Your task to perform on an android device: Clear all items from cart on bestbuy.com. Search for "apple airpods pro" on bestbuy.com, select the first entry, and add it to the cart. Image 0: 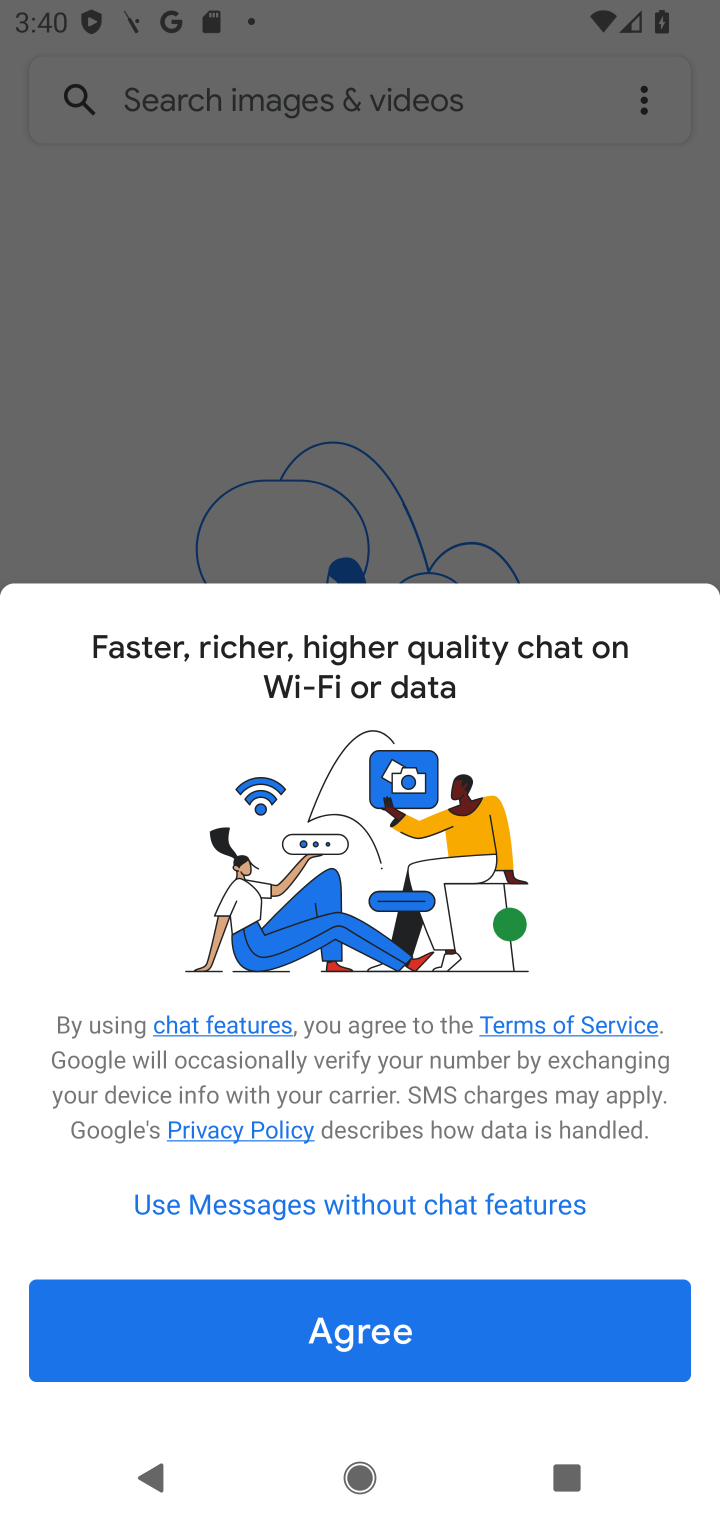
Step 0: press home button
Your task to perform on an android device: Clear all items from cart on bestbuy.com. Search for "apple airpods pro" on bestbuy.com, select the first entry, and add it to the cart. Image 1: 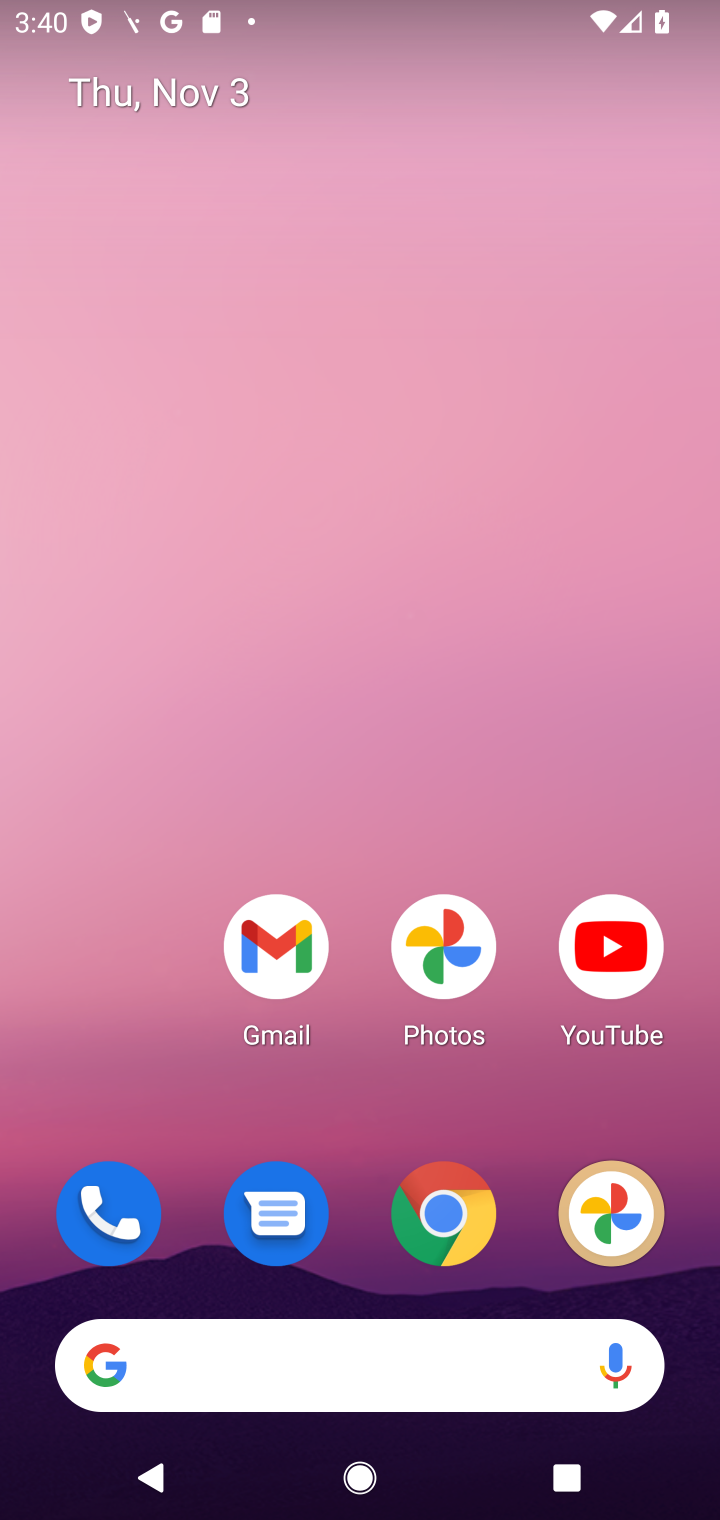
Step 1: click (446, 1218)
Your task to perform on an android device: Clear all items from cart on bestbuy.com. Search for "apple airpods pro" on bestbuy.com, select the first entry, and add it to the cart. Image 2: 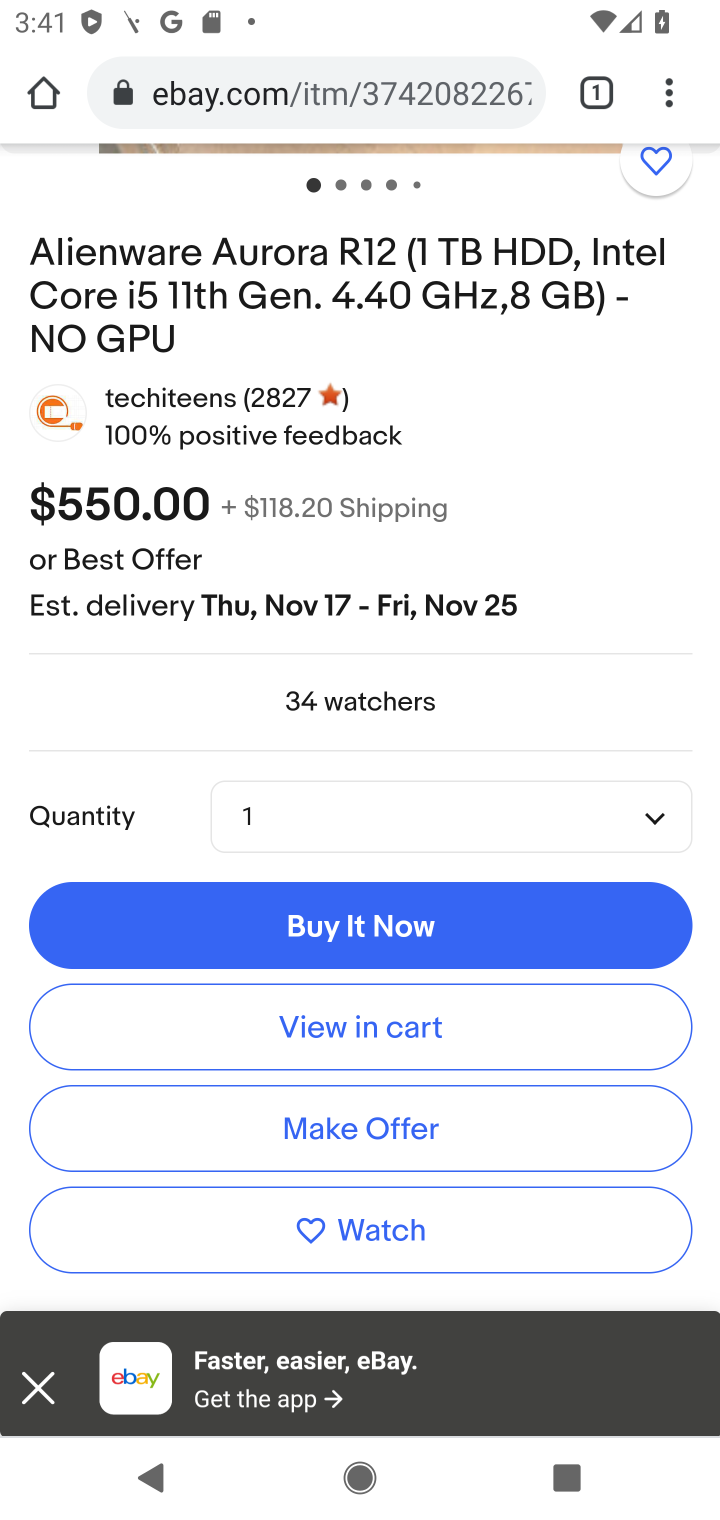
Step 2: click (282, 101)
Your task to perform on an android device: Clear all items from cart on bestbuy.com. Search for "apple airpods pro" on bestbuy.com, select the first entry, and add it to the cart. Image 3: 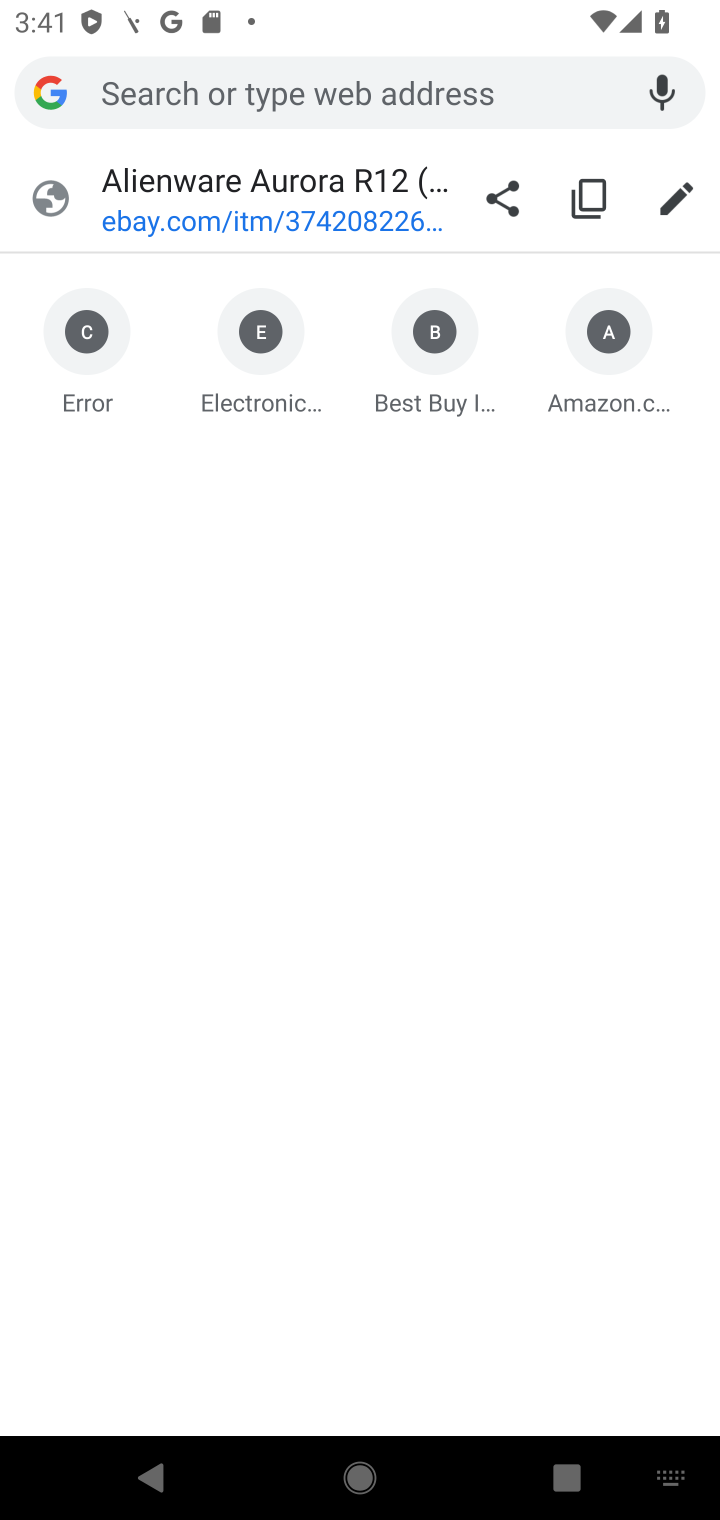
Step 3: type "bestbuy.com"
Your task to perform on an android device: Clear all items from cart on bestbuy.com. Search for "apple airpods pro" on bestbuy.com, select the first entry, and add it to the cart. Image 4: 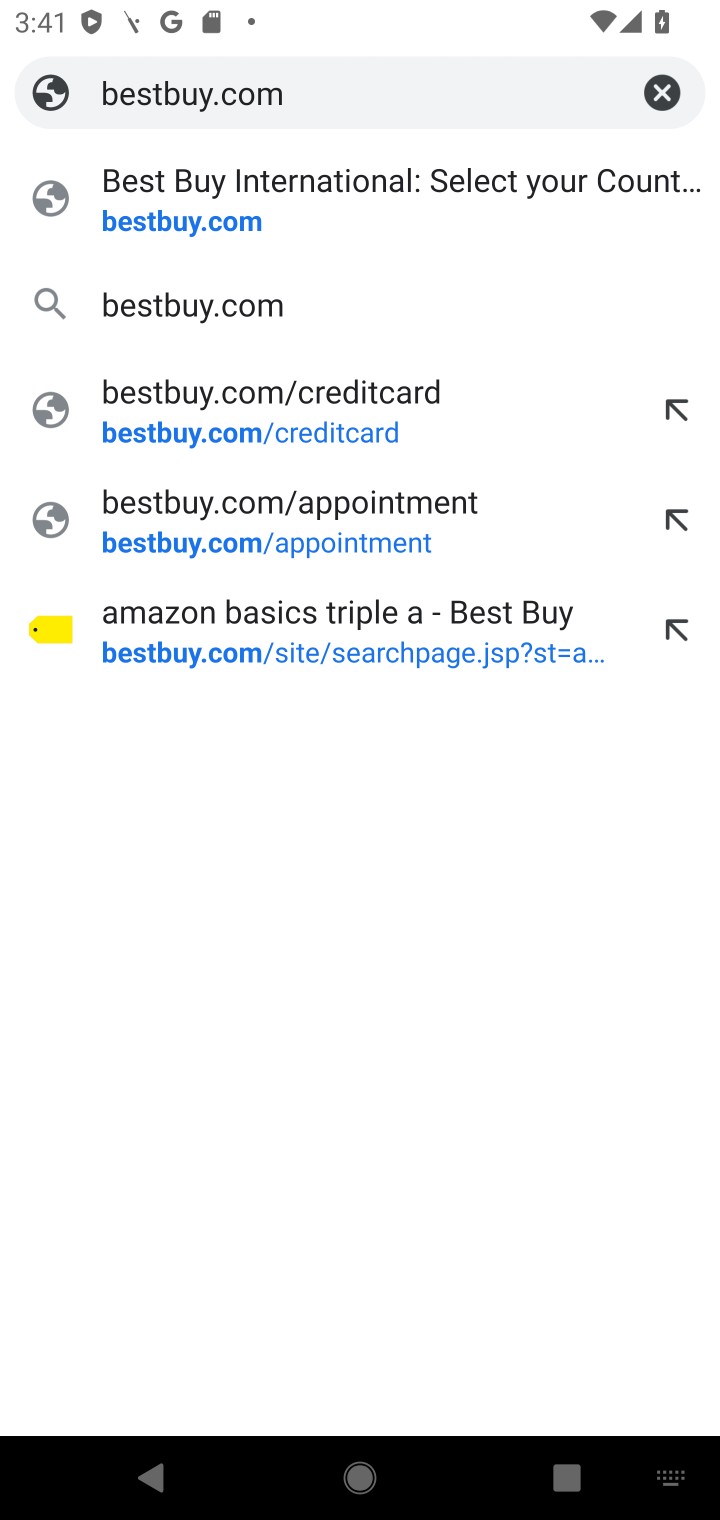
Step 4: click (184, 235)
Your task to perform on an android device: Clear all items from cart on bestbuy.com. Search for "apple airpods pro" on bestbuy.com, select the first entry, and add it to the cart. Image 5: 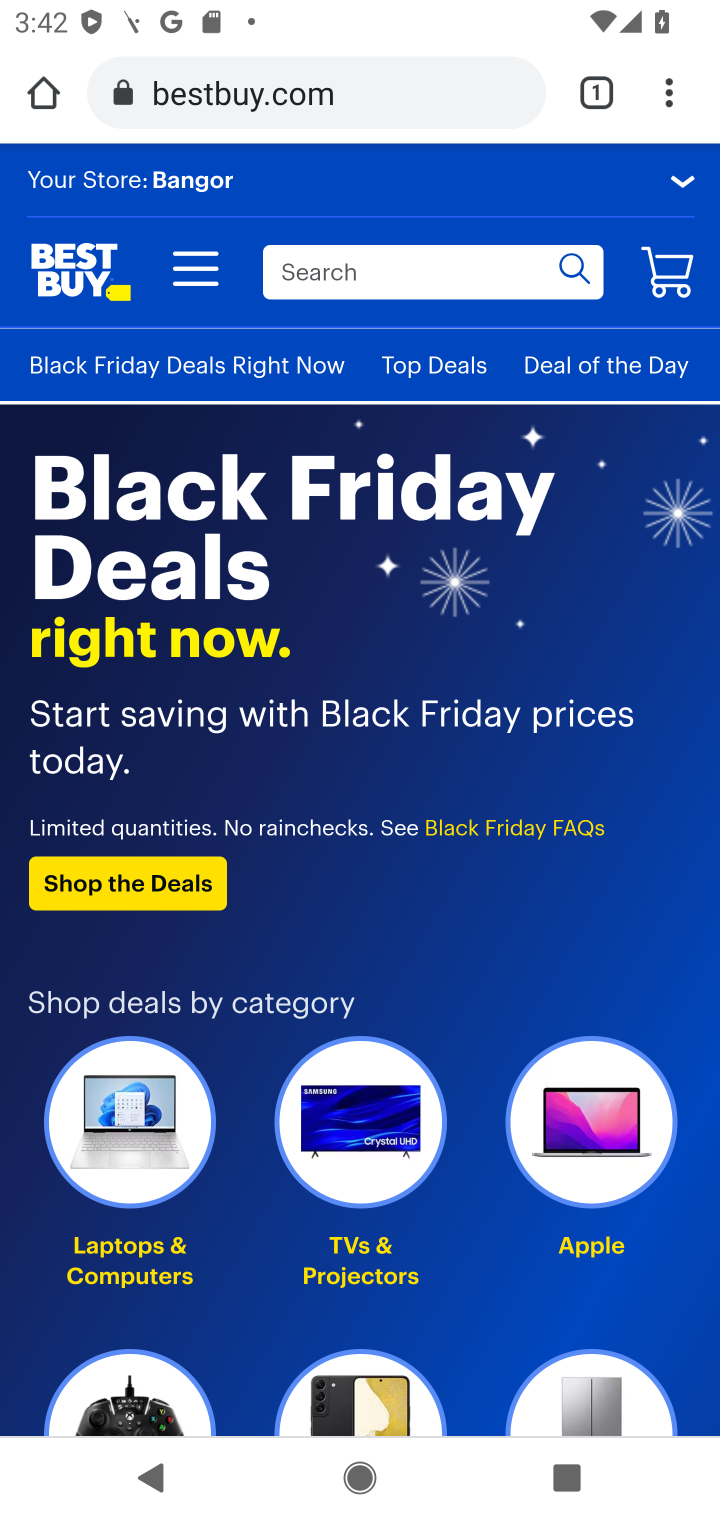
Step 5: click (670, 294)
Your task to perform on an android device: Clear all items from cart on bestbuy.com. Search for "apple airpods pro" on bestbuy.com, select the first entry, and add it to the cart. Image 6: 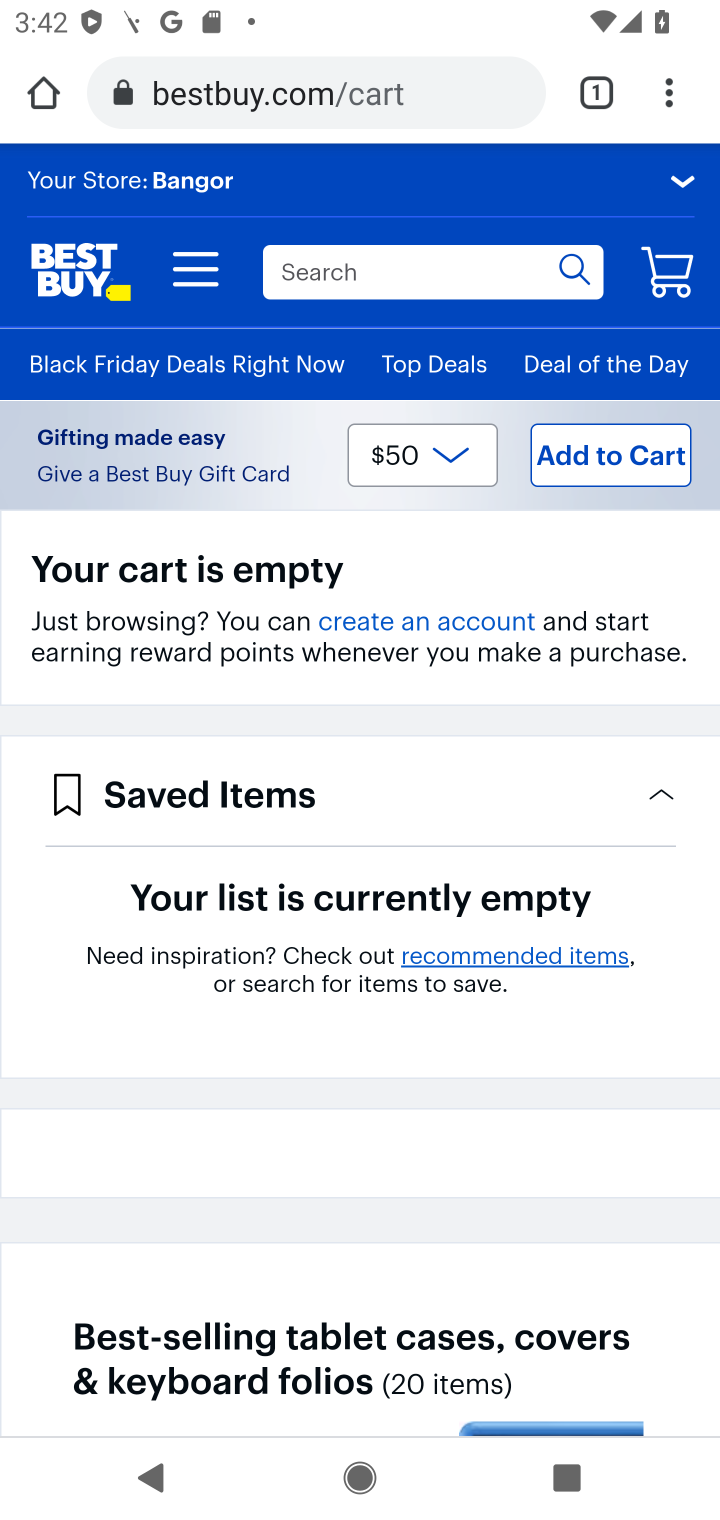
Step 6: click (407, 258)
Your task to perform on an android device: Clear all items from cart on bestbuy.com. Search for "apple airpods pro" on bestbuy.com, select the first entry, and add it to the cart. Image 7: 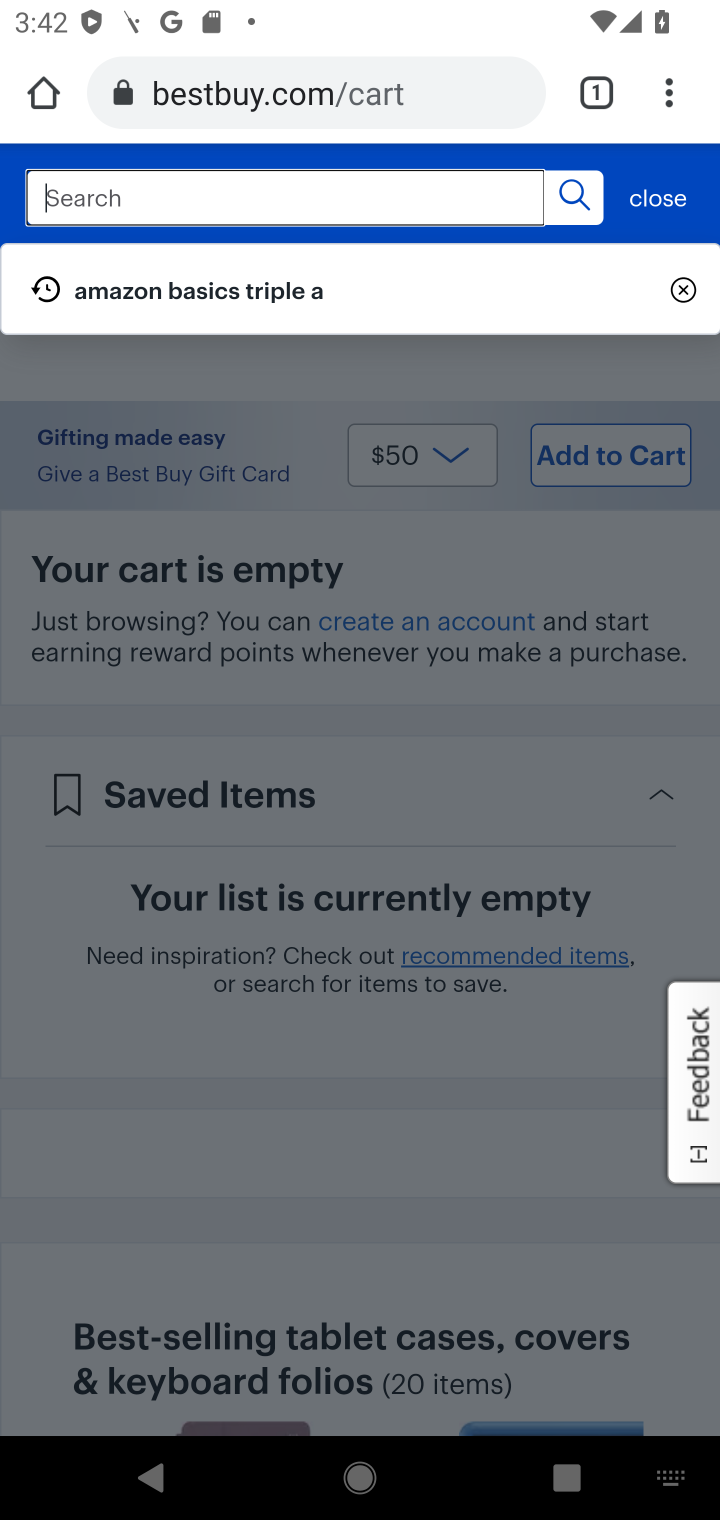
Step 7: type "apple airpods pro"
Your task to perform on an android device: Clear all items from cart on bestbuy.com. Search for "apple airpods pro" on bestbuy.com, select the first entry, and add it to the cart. Image 8: 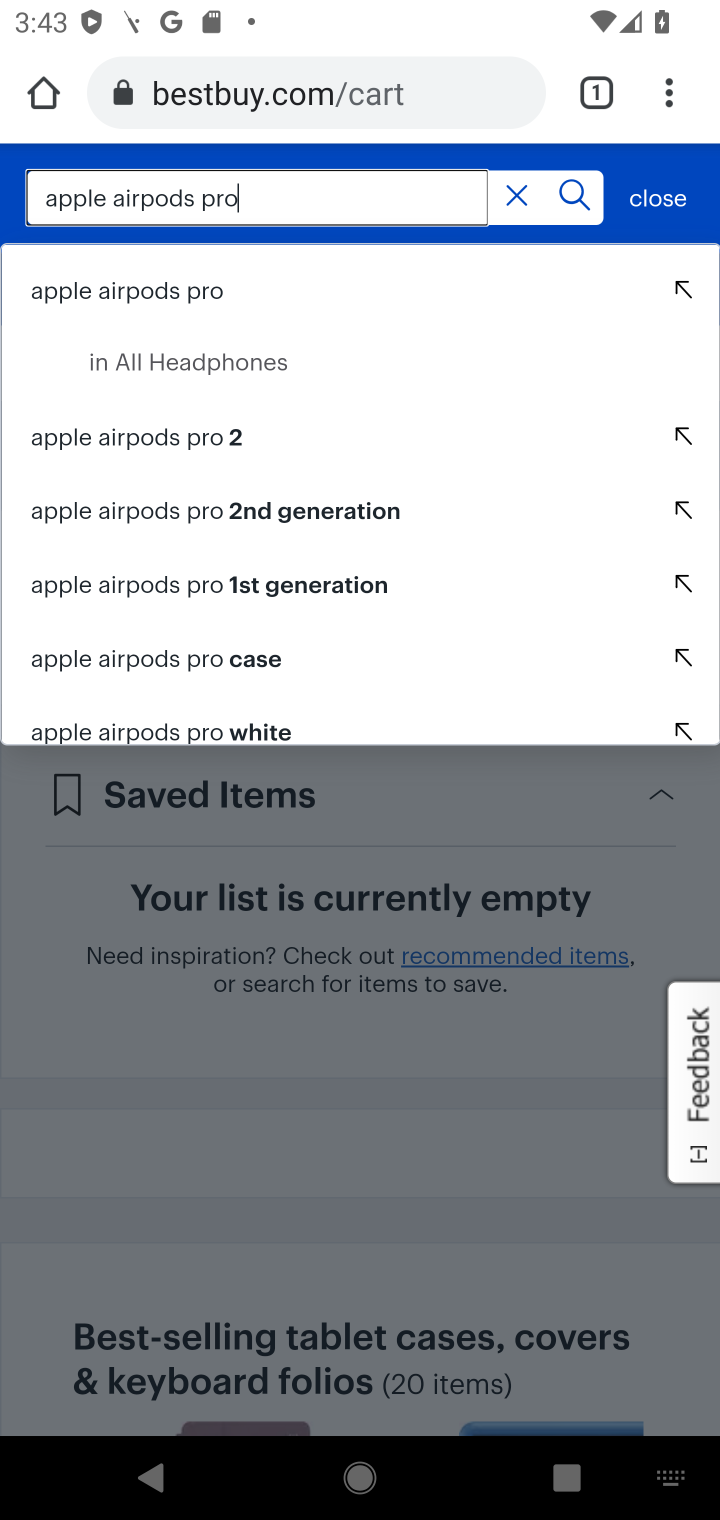
Step 8: click (80, 288)
Your task to perform on an android device: Clear all items from cart on bestbuy.com. Search for "apple airpods pro" on bestbuy.com, select the first entry, and add it to the cart. Image 9: 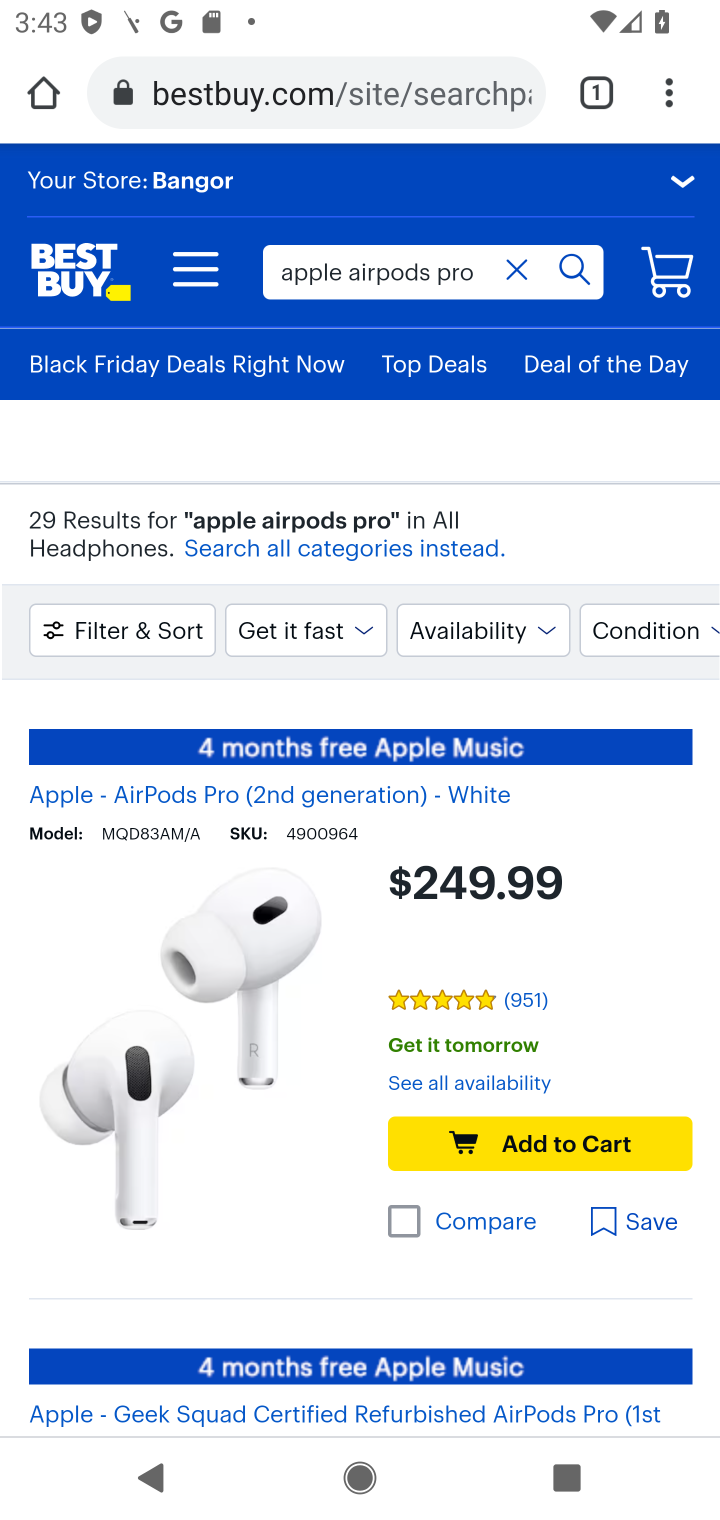
Step 9: click (273, 991)
Your task to perform on an android device: Clear all items from cart on bestbuy.com. Search for "apple airpods pro" on bestbuy.com, select the first entry, and add it to the cart. Image 10: 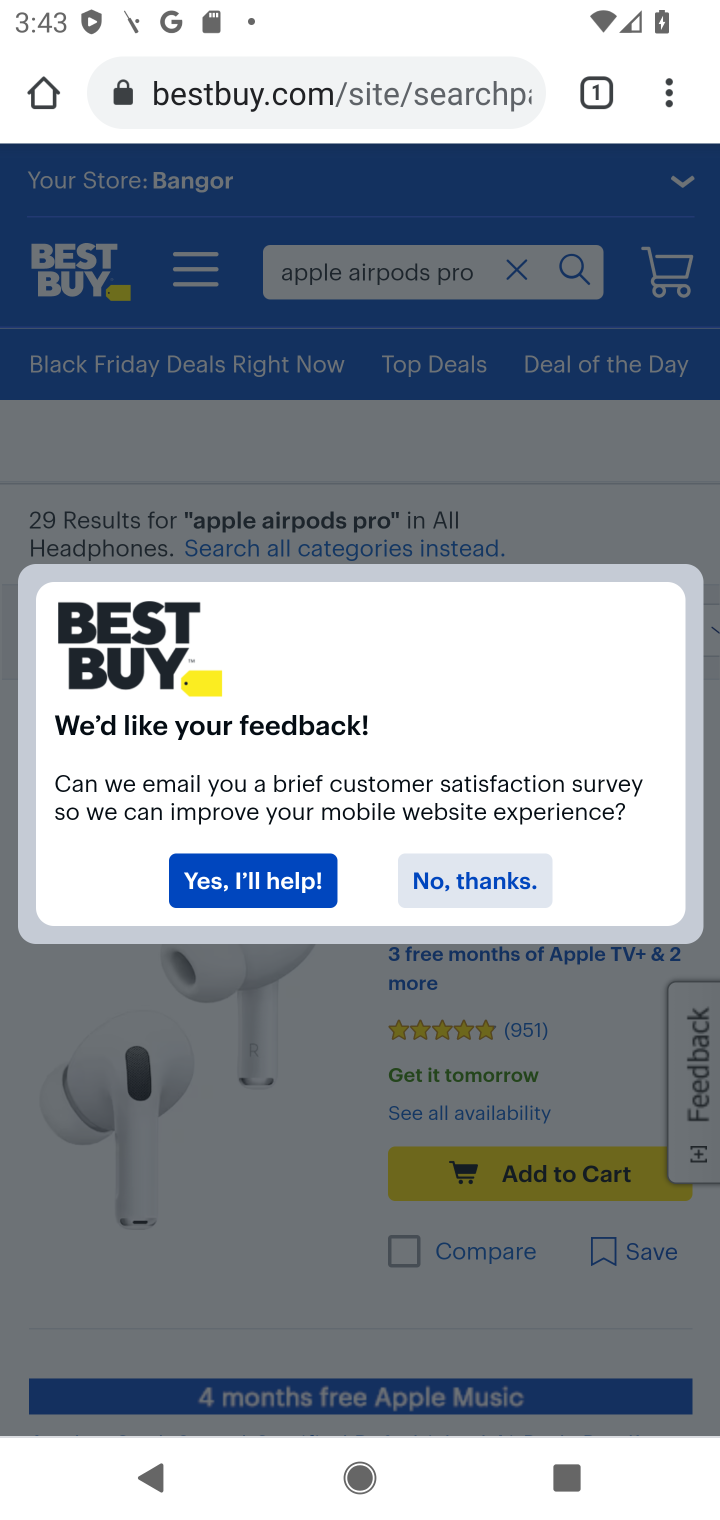
Step 10: click (438, 867)
Your task to perform on an android device: Clear all items from cart on bestbuy.com. Search for "apple airpods pro" on bestbuy.com, select the first entry, and add it to the cart. Image 11: 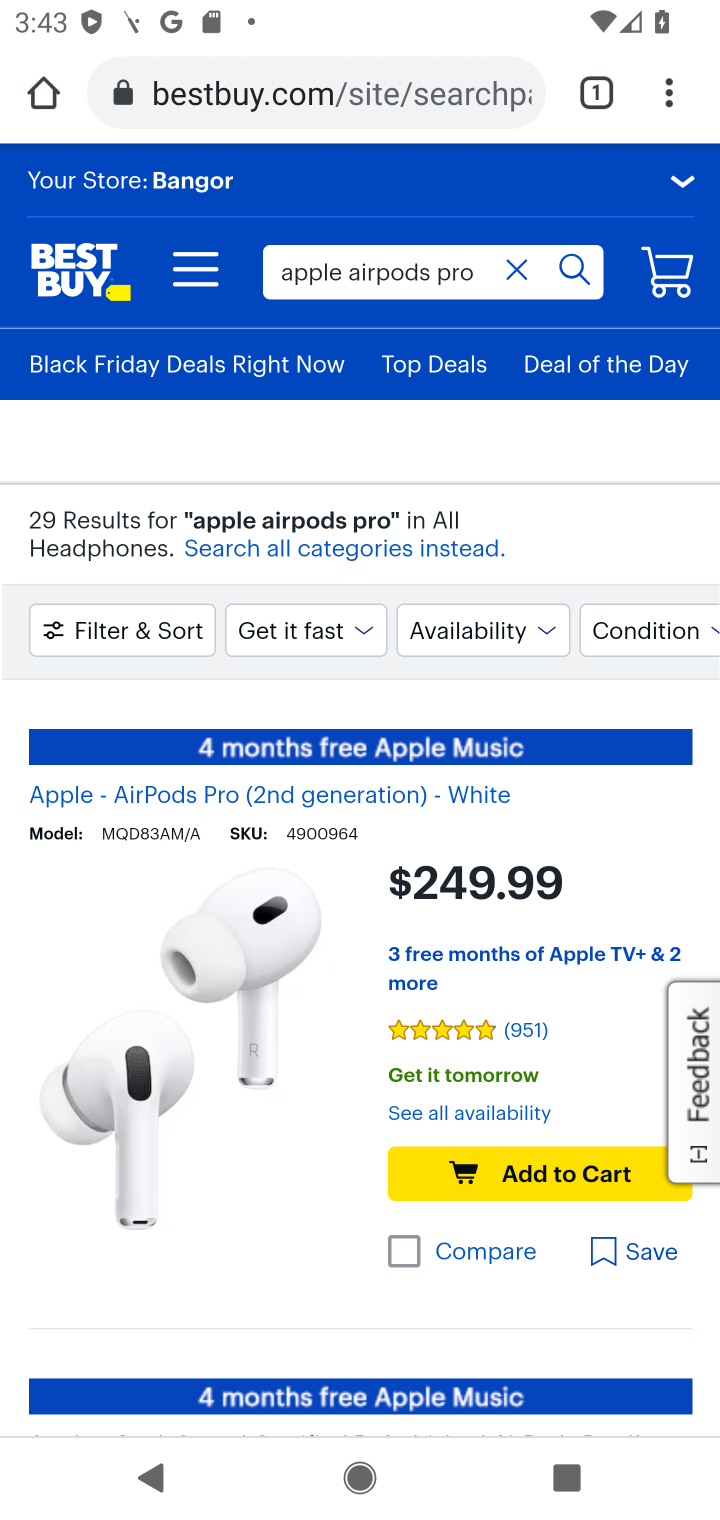
Step 11: click (430, 878)
Your task to perform on an android device: Clear all items from cart on bestbuy.com. Search for "apple airpods pro" on bestbuy.com, select the first entry, and add it to the cart. Image 12: 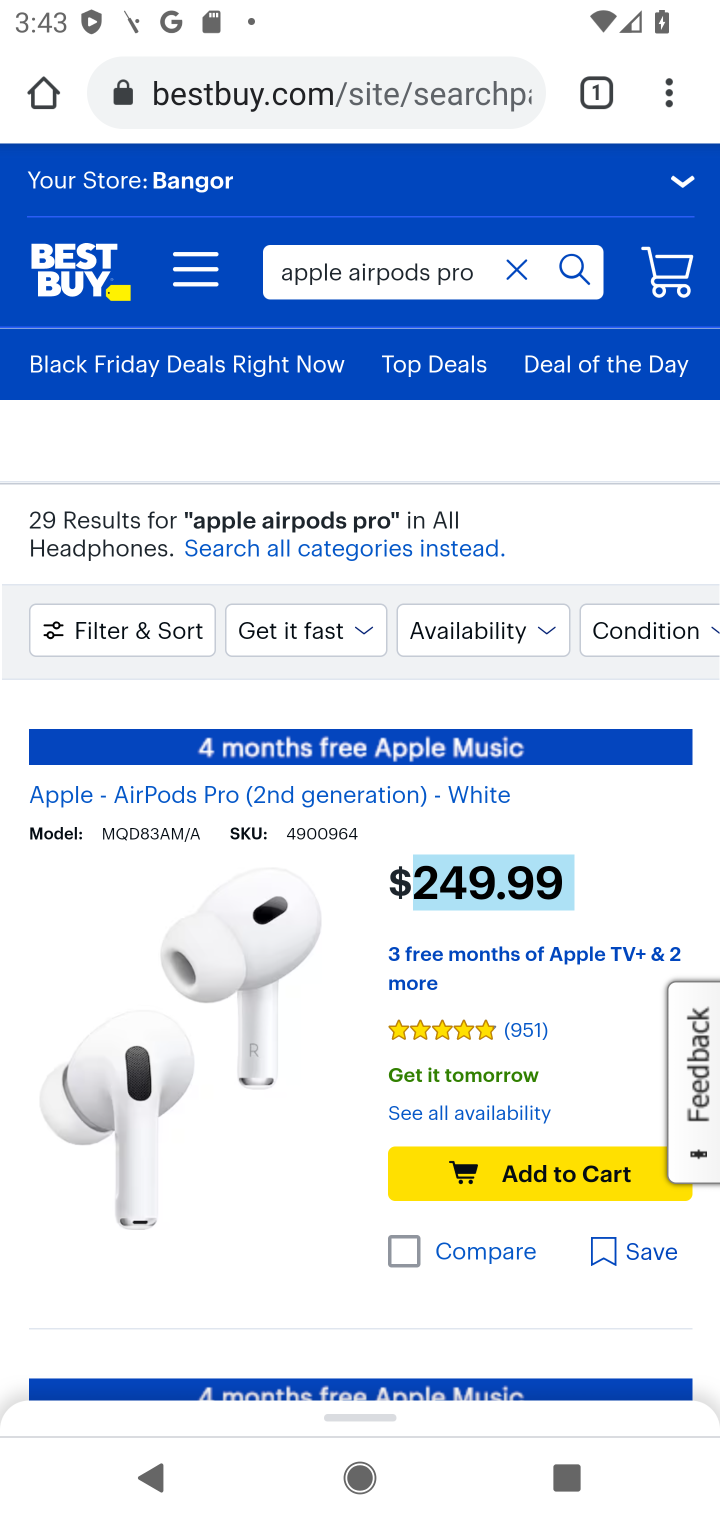
Step 12: click (276, 1077)
Your task to perform on an android device: Clear all items from cart on bestbuy.com. Search for "apple airpods pro" on bestbuy.com, select the first entry, and add it to the cart. Image 13: 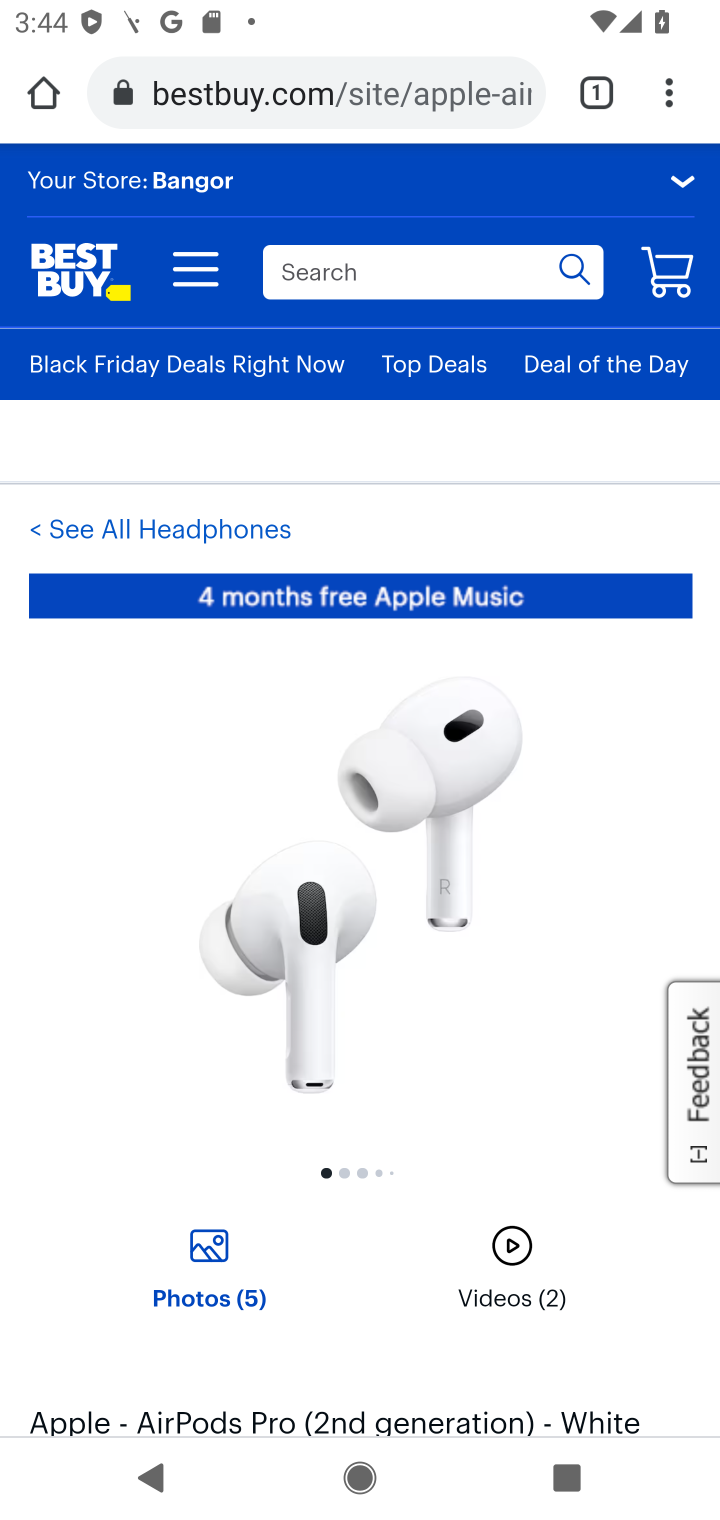
Step 13: drag from (406, 992) to (439, 304)
Your task to perform on an android device: Clear all items from cart on bestbuy.com. Search for "apple airpods pro" on bestbuy.com, select the first entry, and add it to the cart. Image 14: 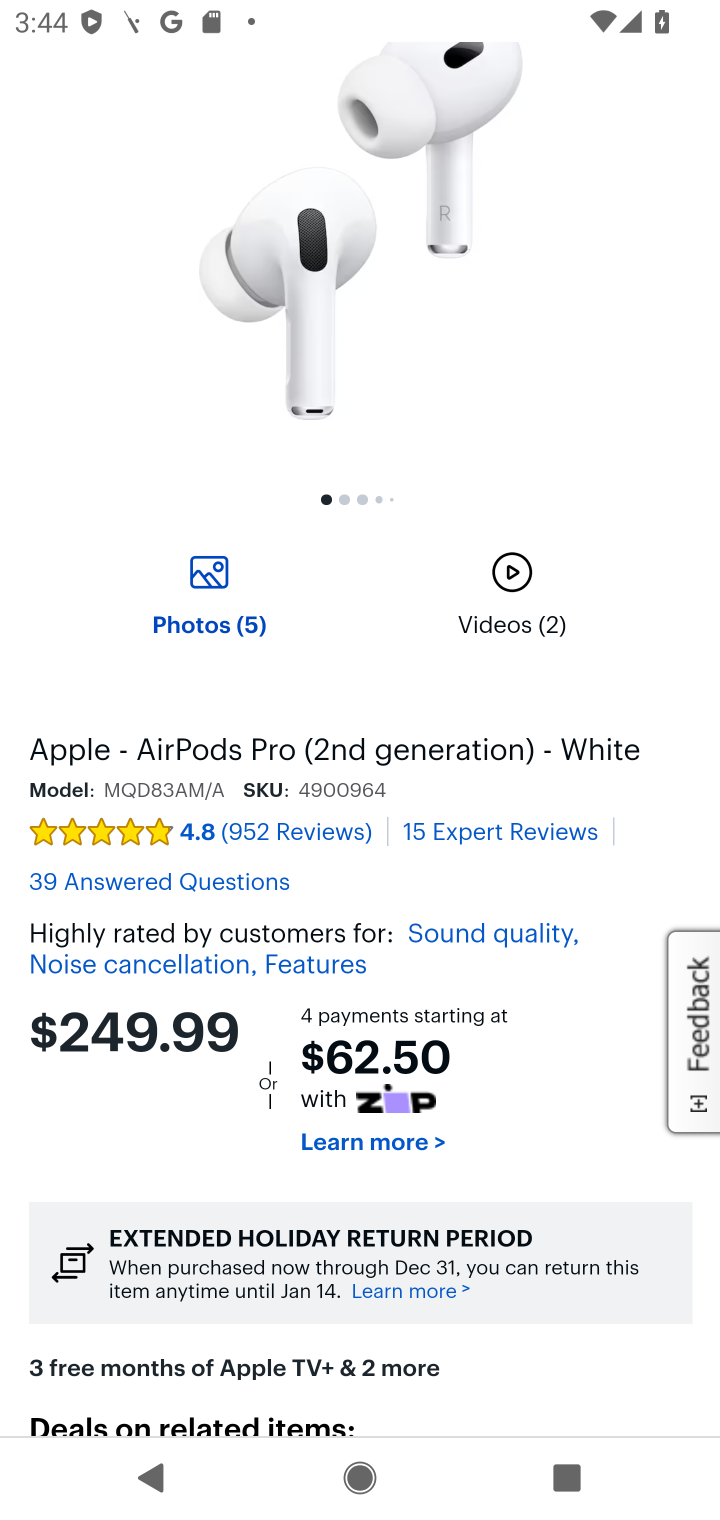
Step 14: drag from (322, 1012) to (349, 453)
Your task to perform on an android device: Clear all items from cart on bestbuy.com. Search for "apple airpods pro" on bestbuy.com, select the first entry, and add it to the cart. Image 15: 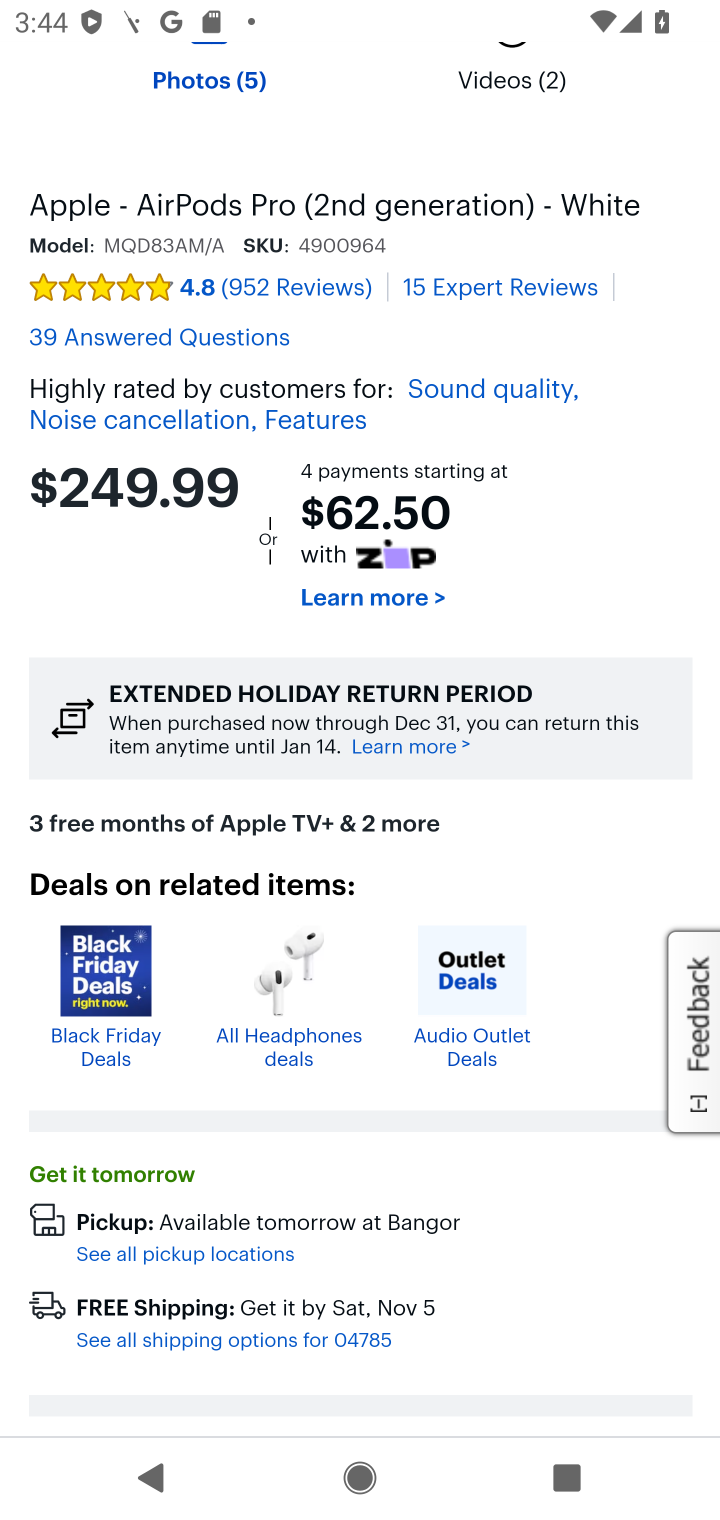
Step 15: drag from (362, 1133) to (394, 571)
Your task to perform on an android device: Clear all items from cart on bestbuy.com. Search for "apple airpods pro" on bestbuy.com, select the first entry, and add it to the cart. Image 16: 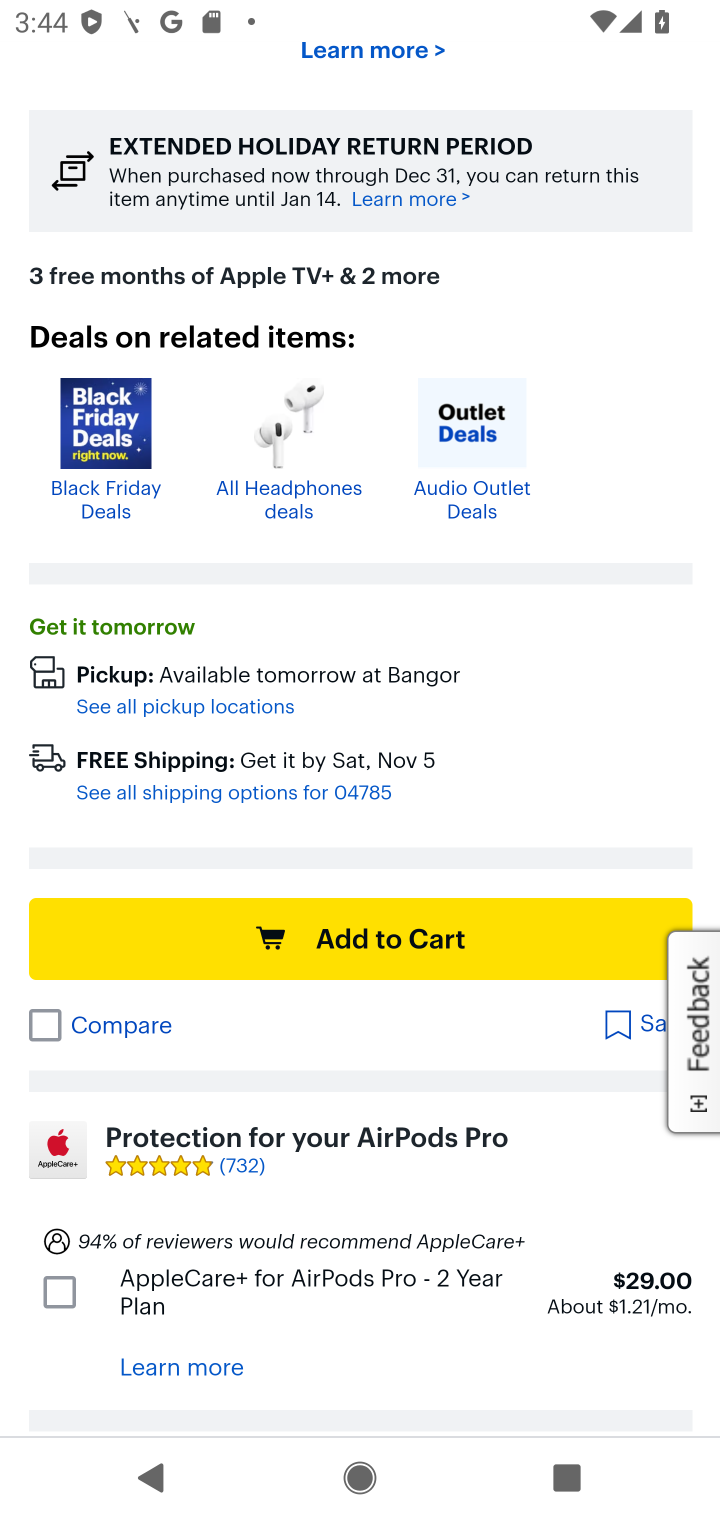
Step 16: click (367, 952)
Your task to perform on an android device: Clear all items from cart on bestbuy.com. Search for "apple airpods pro" on bestbuy.com, select the first entry, and add it to the cart. Image 17: 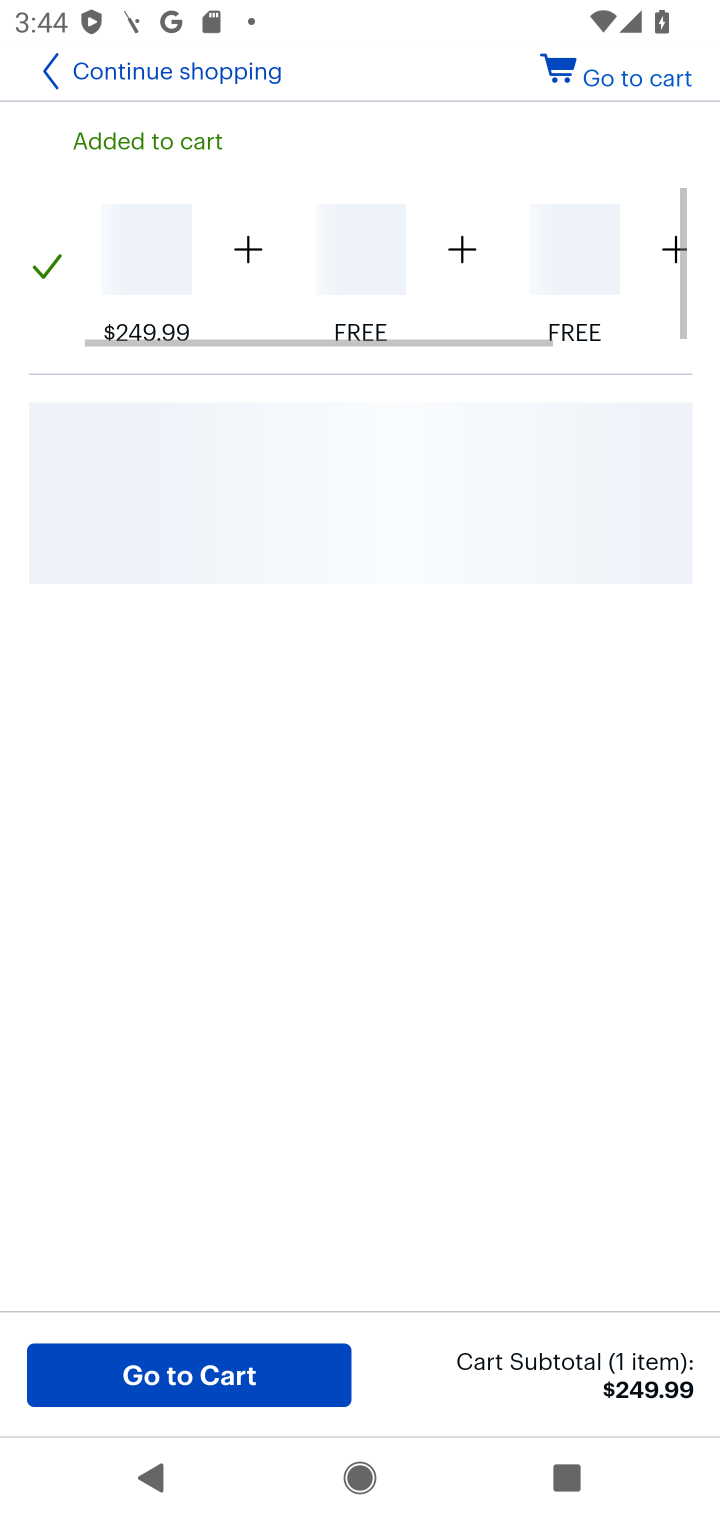
Step 17: task complete